Your task to perform on an android device: turn on wifi Image 0: 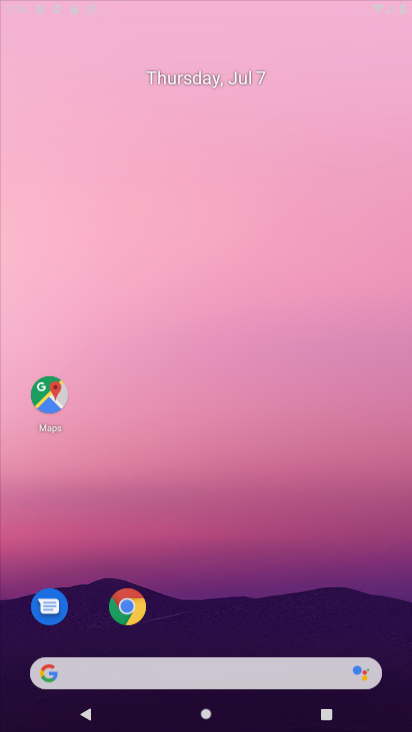
Step 0: press home button
Your task to perform on an android device: turn on wifi Image 1: 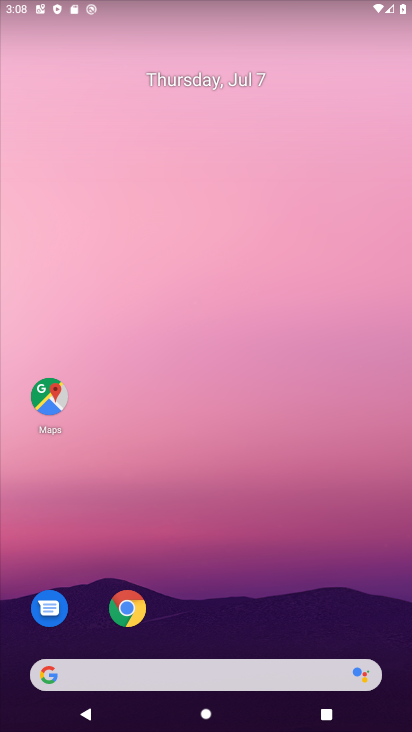
Step 1: drag from (218, 638) to (219, 48)
Your task to perform on an android device: turn on wifi Image 2: 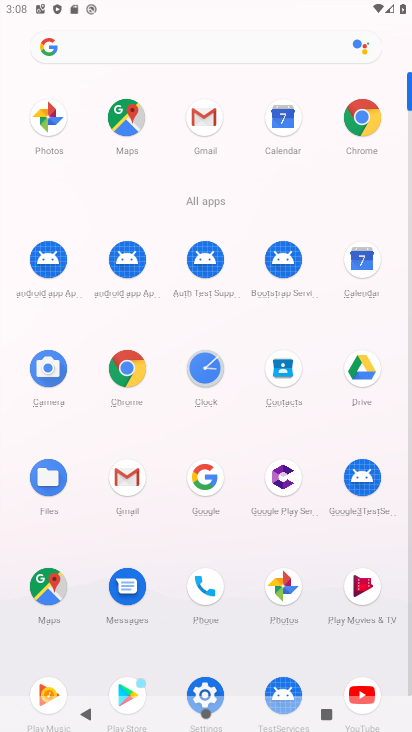
Step 2: click (205, 680)
Your task to perform on an android device: turn on wifi Image 3: 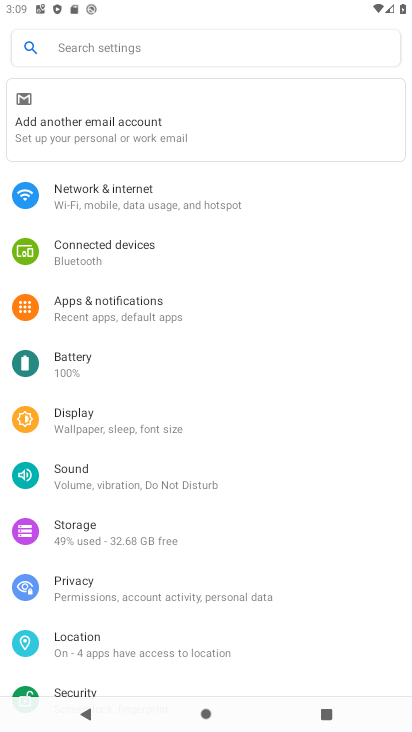
Step 3: click (139, 182)
Your task to perform on an android device: turn on wifi Image 4: 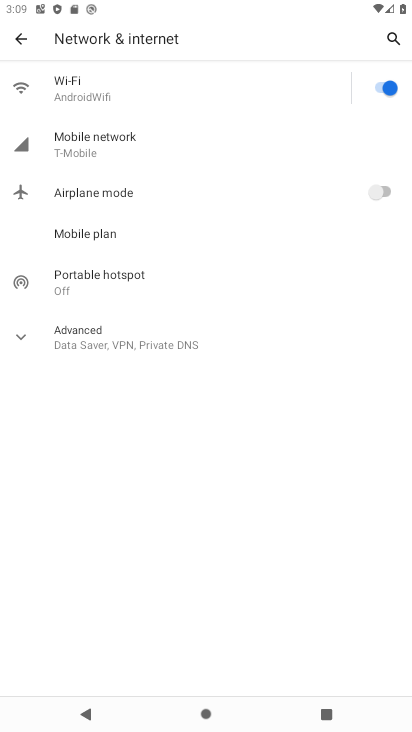
Step 4: click (382, 89)
Your task to perform on an android device: turn on wifi Image 5: 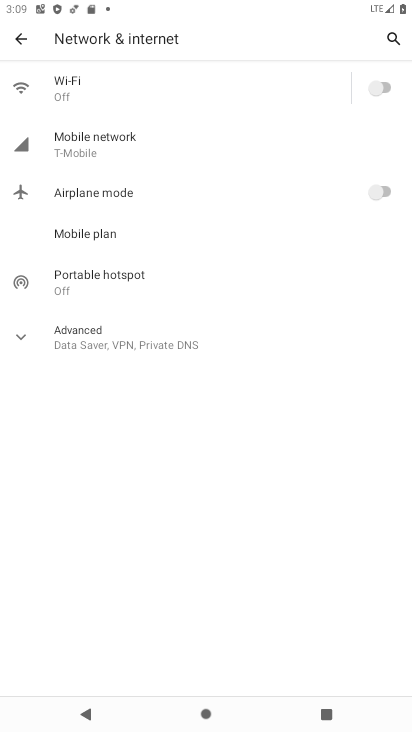
Step 5: task complete